Your task to perform on an android device: turn notification dots on Image 0: 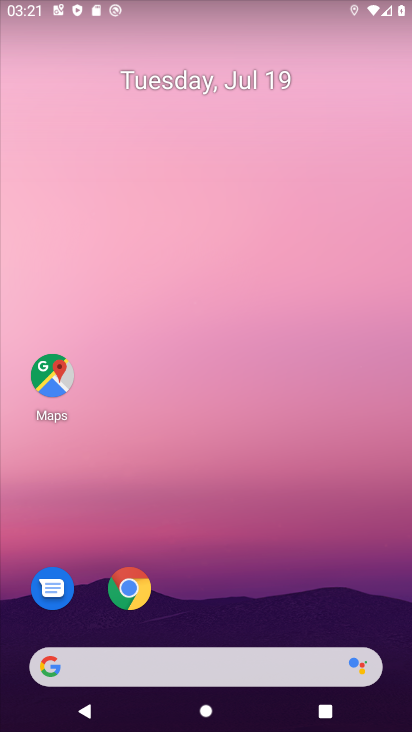
Step 0: drag from (224, 577) to (231, 102)
Your task to perform on an android device: turn notification dots on Image 1: 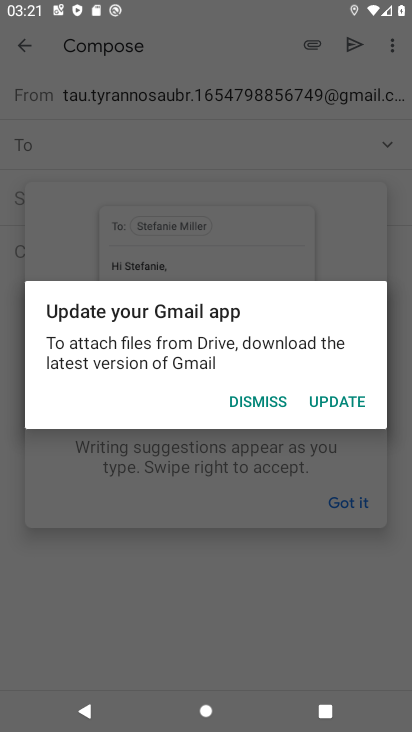
Step 1: press home button
Your task to perform on an android device: turn notification dots on Image 2: 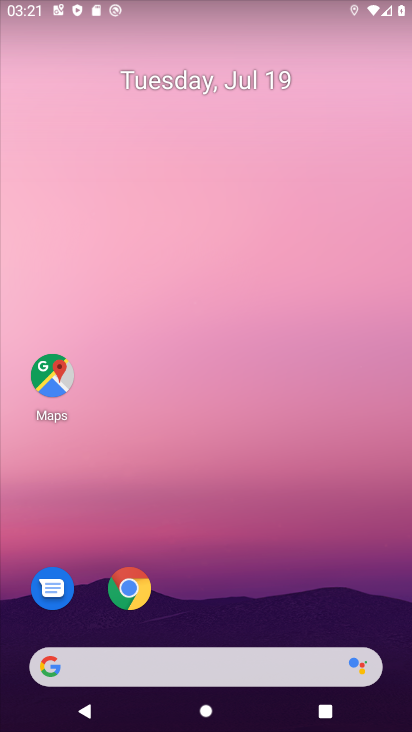
Step 2: drag from (230, 534) to (174, 73)
Your task to perform on an android device: turn notification dots on Image 3: 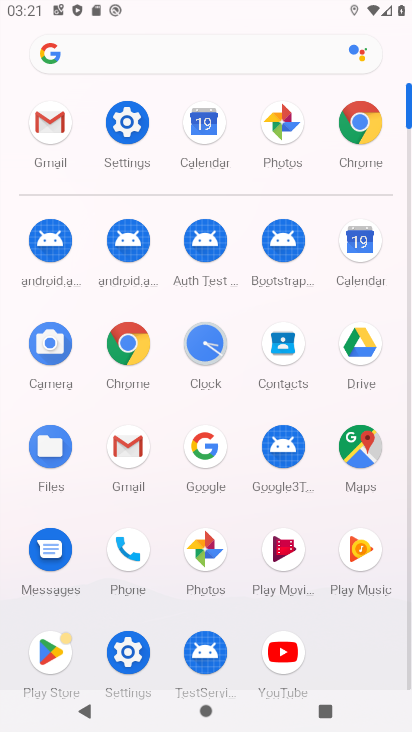
Step 3: click (123, 118)
Your task to perform on an android device: turn notification dots on Image 4: 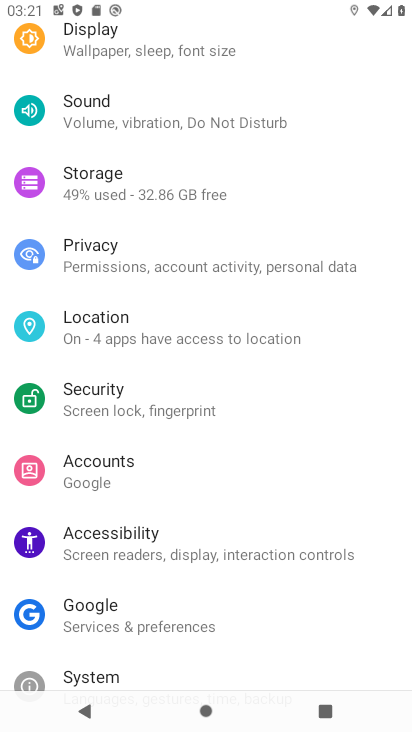
Step 4: drag from (211, 174) to (271, 432)
Your task to perform on an android device: turn notification dots on Image 5: 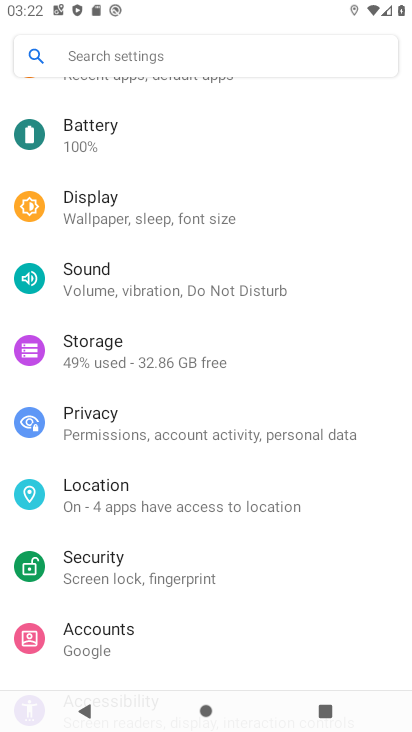
Step 5: drag from (163, 145) to (179, 497)
Your task to perform on an android device: turn notification dots on Image 6: 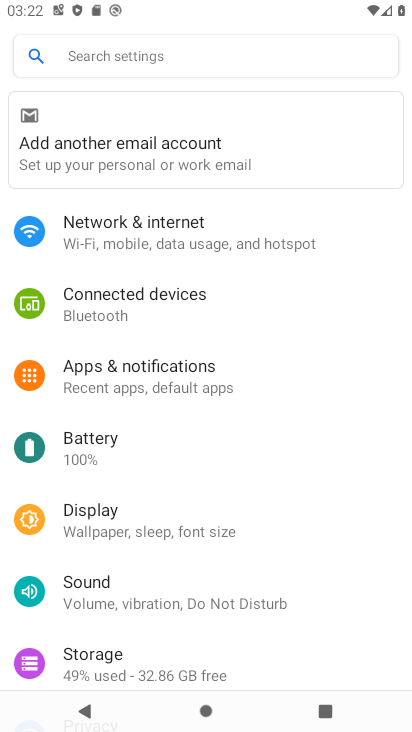
Step 6: click (142, 365)
Your task to perform on an android device: turn notification dots on Image 7: 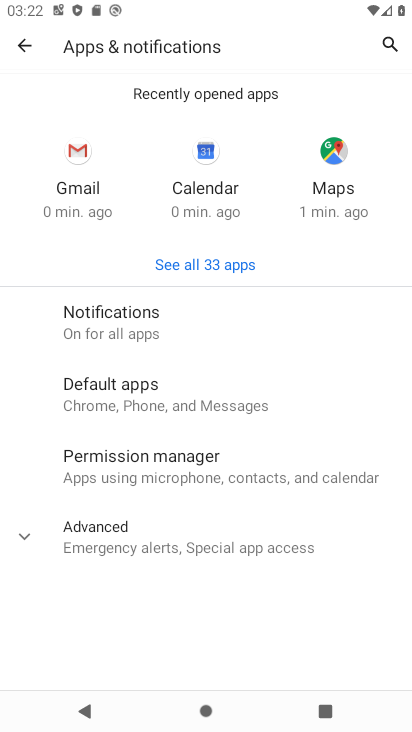
Step 7: click (118, 303)
Your task to perform on an android device: turn notification dots on Image 8: 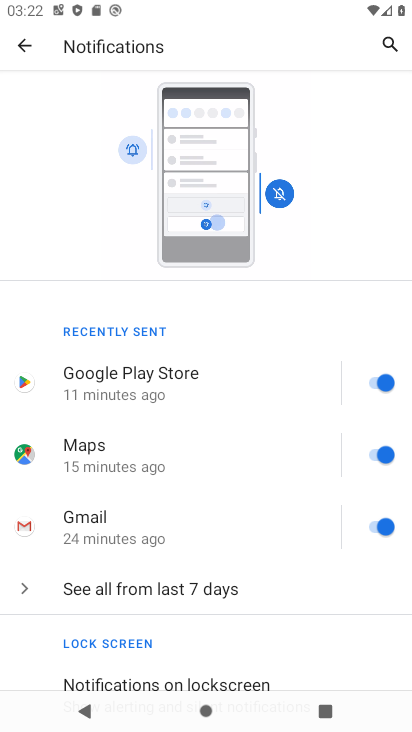
Step 8: drag from (224, 646) to (209, 324)
Your task to perform on an android device: turn notification dots on Image 9: 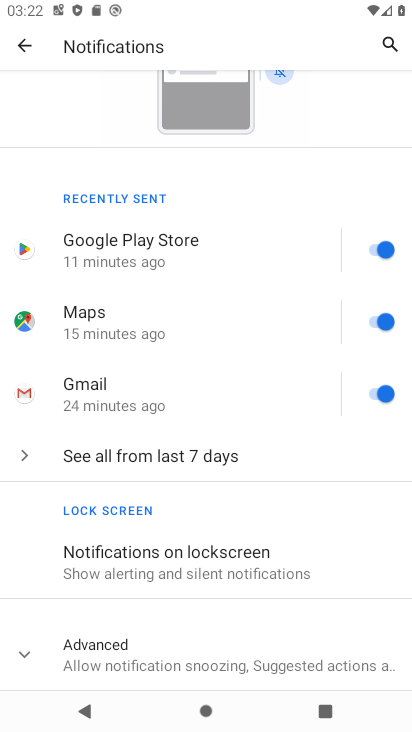
Step 9: click (22, 655)
Your task to perform on an android device: turn notification dots on Image 10: 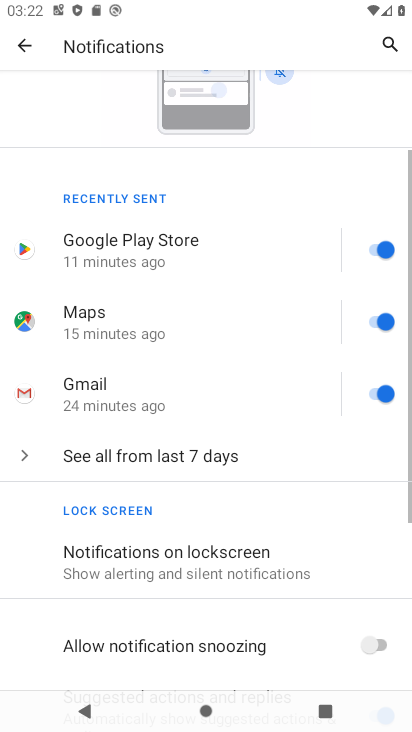
Step 10: task complete